Your task to perform on an android device: Go to notification settings Image 0: 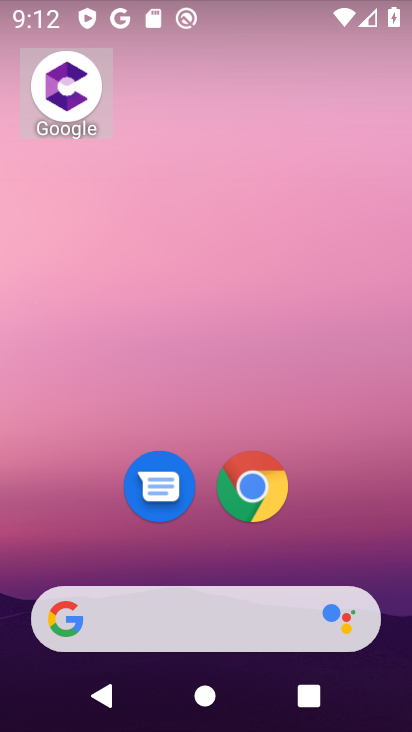
Step 0: drag from (309, 545) to (269, 39)
Your task to perform on an android device: Go to notification settings Image 1: 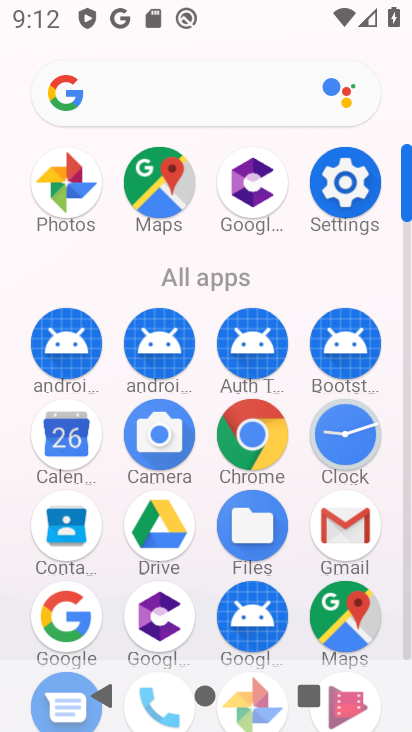
Step 1: click (342, 173)
Your task to perform on an android device: Go to notification settings Image 2: 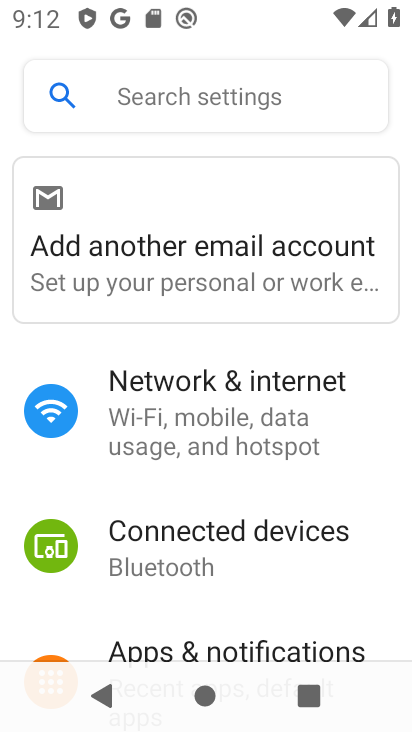
Step 2: click (230, 648)
Your task to perform on an android device: Go to notification settings Image 3: 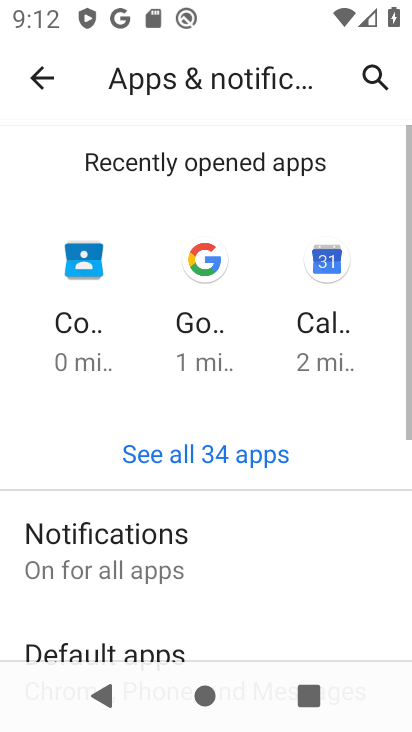
Step 3: click (182, 558)
Your task to perform on an android device: Go to notification settings Image 4: 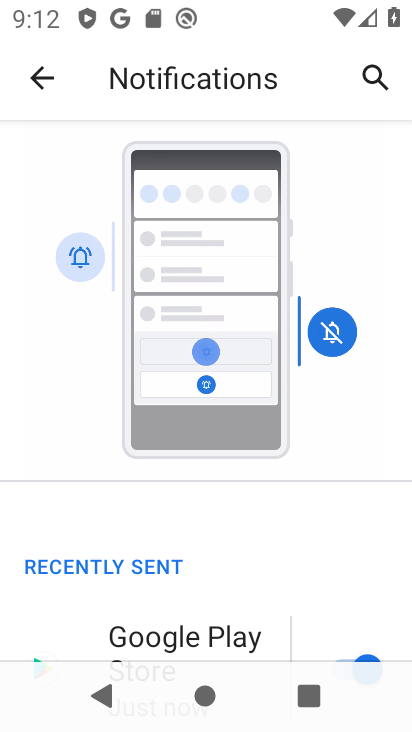
Step 4: task complete